Your task to perform on an android device: Go to settings Image 0: 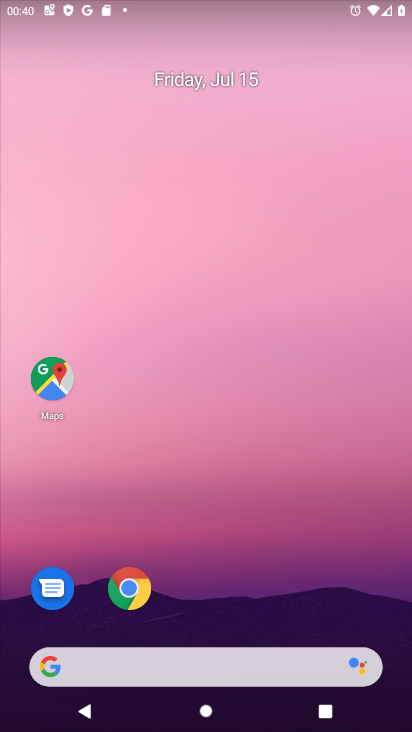
Step 0: press home button
Your task to perform on an android device: Go to settings Image 1: 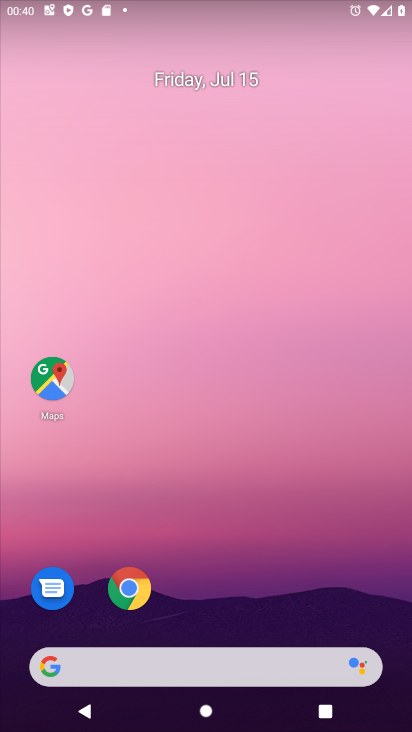
Step 1: drag from (182, 673) to (267, 68)
Your task to perform on an android device: Go to settings Image 2: 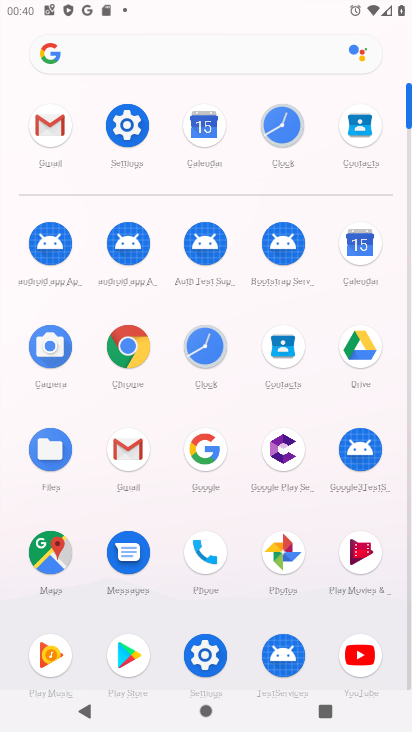
Step 2: click (128, 119)
Your task to perform on an android device: Go to settings Image 3: 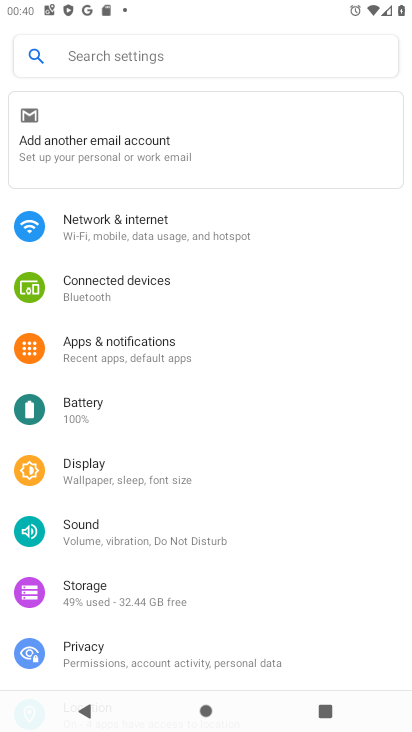
Step 3: task complete